Your task to perform on an android device: turn on notifications settings in the gmail app Image 0: 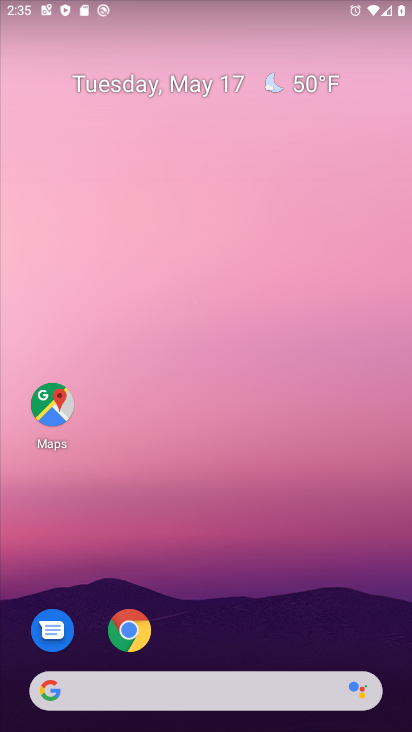
Step 0: click (219, 236)
Your task to perform on an android device: turn on notifications settings in the gmail app Image 1: 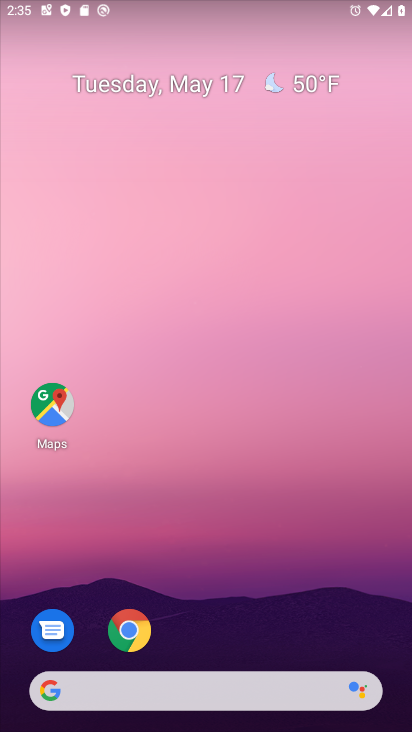
Step 1: drag from (190, 682) to (192, 288)
Your task to perform on an android device: turn on notifications settings in the gmail app Image 2: 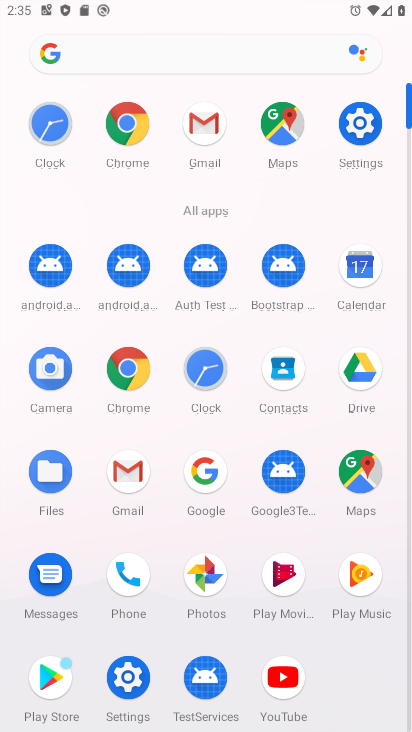
Step 2: click (194, 134)
Your task to perform on an android device: turn on notifications settings in the gmail app Image 3: 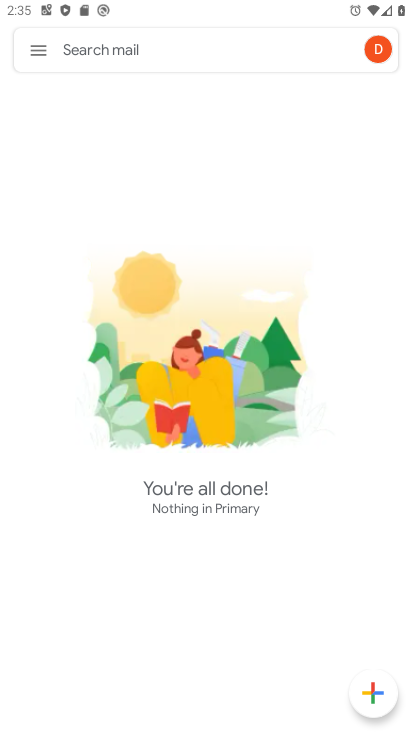
Step 3: click (38, 51)
Your task to perform on an android device: turn on notifications settings in the gmail app Image 4: 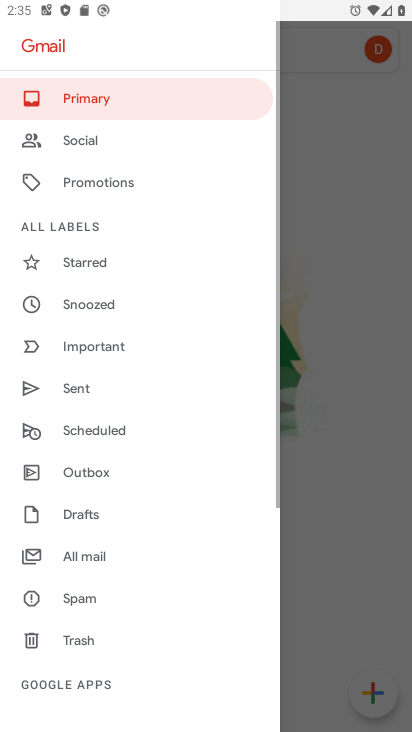
Step 4: drag from (84, 673) to (138, 244)
Your task to perform on an android device: turn on notifications settings in the gmail app Image 5: 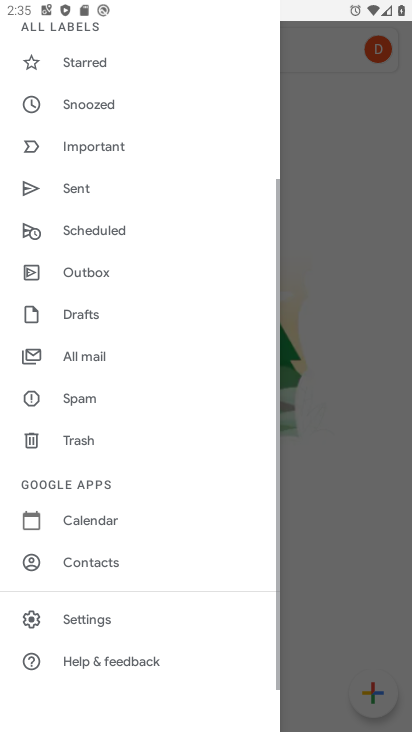
Step 5: click (84, 617)
Your task to perform on an android device: turn on notifications settings in the gmail app Image 6: 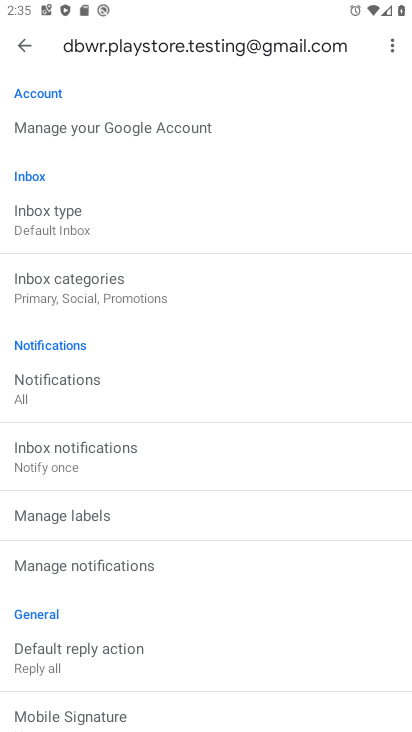
Step 6: click (24, 46)
Your task to perform on an android device: turn on notifications settings in the gmail app Image 7: 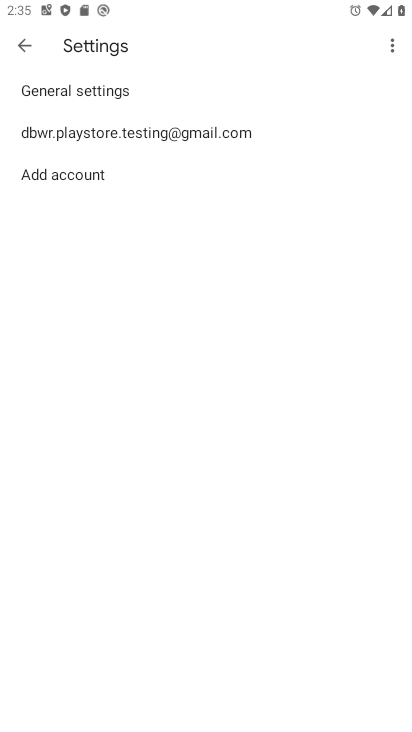
Step 7: click (95, 87)
Your task to perform on an android device: turn on notifications settings in the gmail app Image 8: 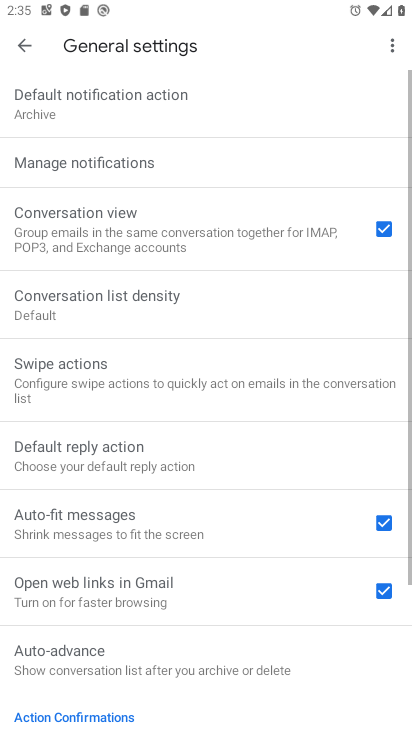
Step 8: click (106, 165)
Your task to perform on an android device: turn on notifications settings in the gmail app Image 9: 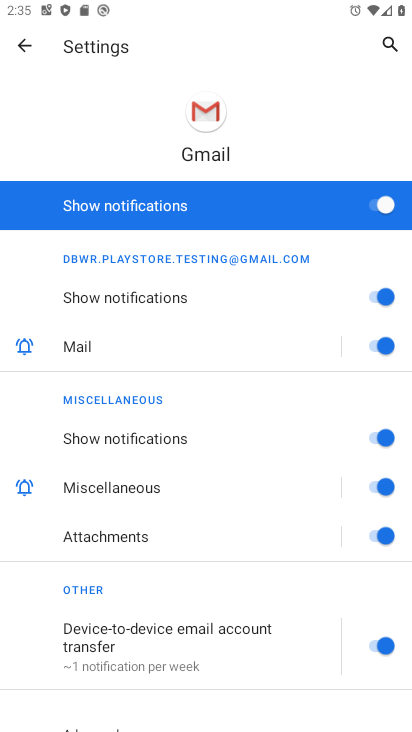
Step 9: task complete